Your task to perform on an android device: search for starred emails in the gmail app Image 0: 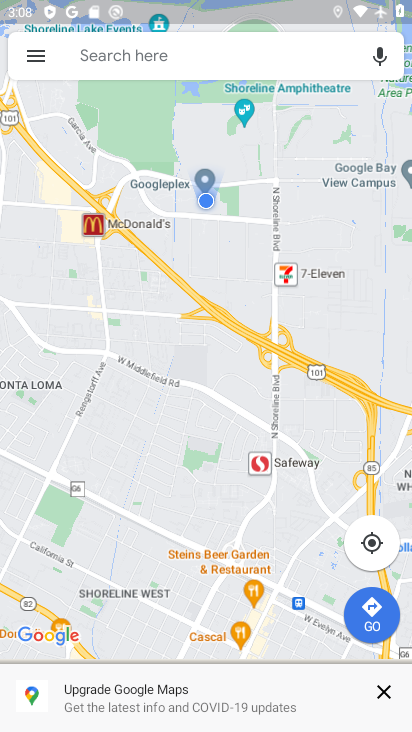
Step 0: press home button
Your task to perform on an android device: search for starred emails in the gmail app Image 1: 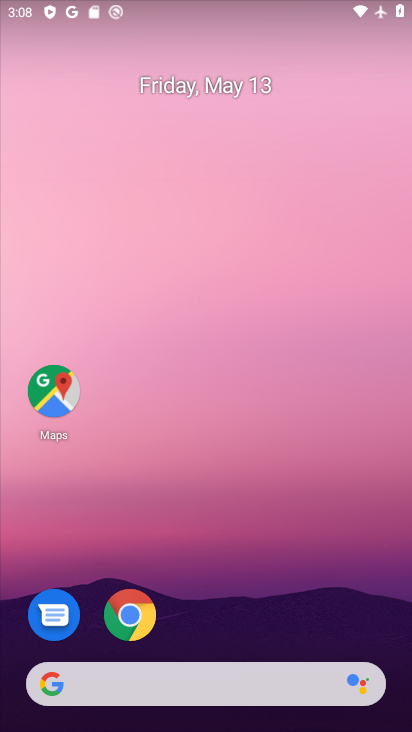
Step 1: drag from (197, 691) to (348, 150)
Your task to perform on an android device: search for starred emails in the gmail app Image 2: 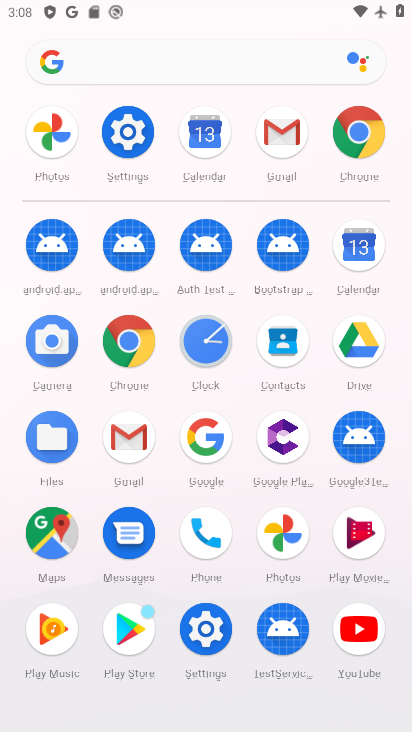
Step 2: click (282, 148)
Your task to perform on an android device: search for starred emails in the gmail app Image 3: 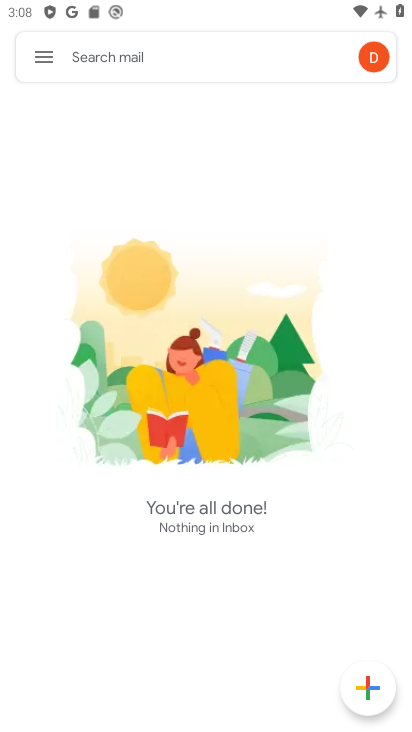
Step 3: click (47, 66)
Your task to perform on an android device: search for starred emails in the gmail app Image 4: 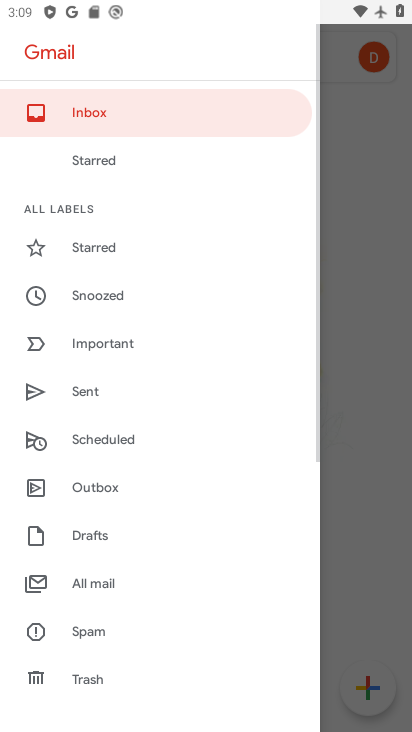
Step 4: click (105, 243)
Your task to perform on an android device: search for starred emails in the gmail app Image 5: 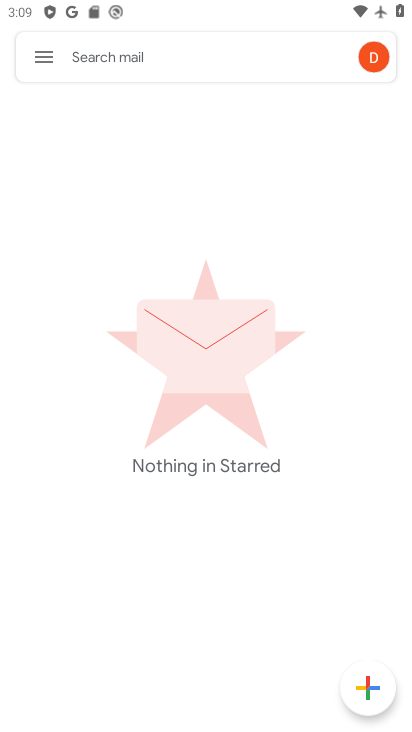
Step 5: task complete